Your task to perform on an android device: Go to Yahoo.com Image 0: 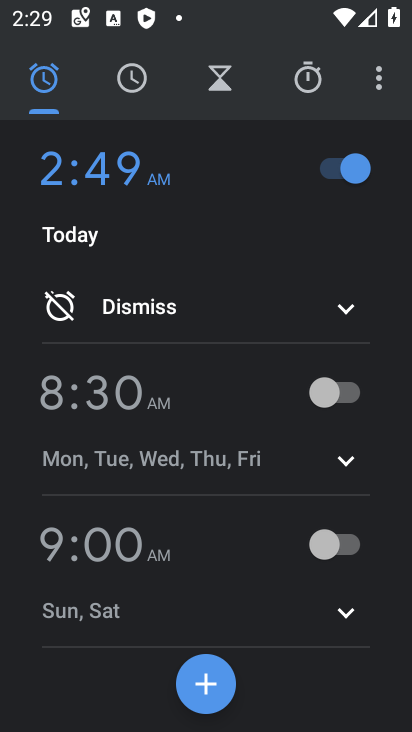
Step 0: press home button
Your task to perform on an android device: Go to Yahoo.com Image 1: 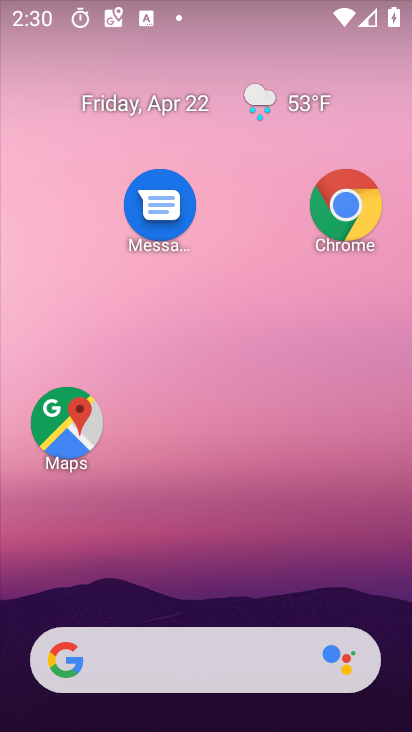
Step 1: click (353, 212)
Your task to perform on an android device: Go to Yahoo.com Image 2: 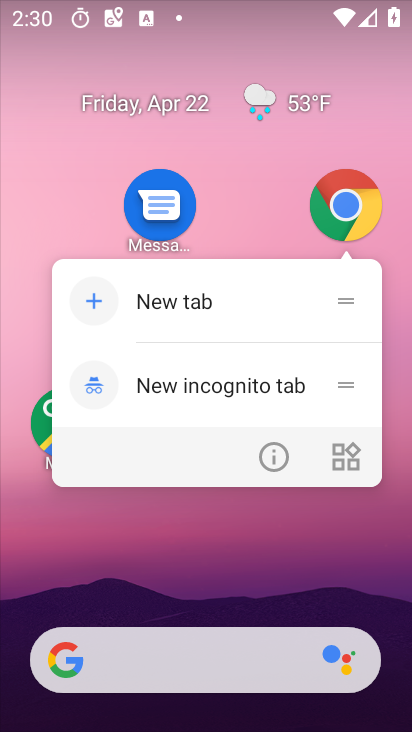
Step 2: click (353, 212)
Your task to perform on an android device: Go to Yahoo.com Image 3: 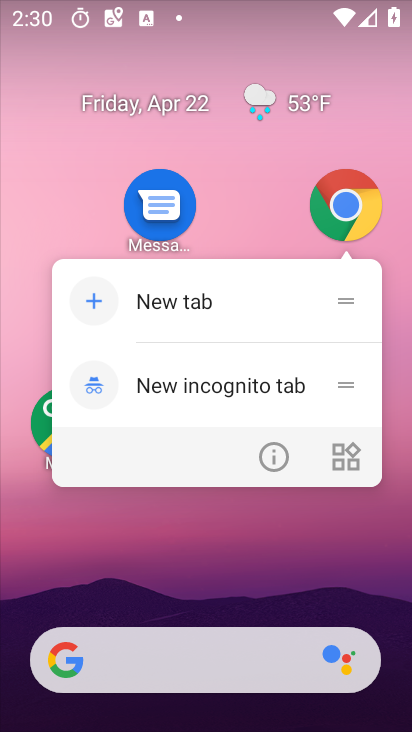
Step 3: click (353, 212)
Your task to perform on an android device: Go to Yahoo.com Image 4: 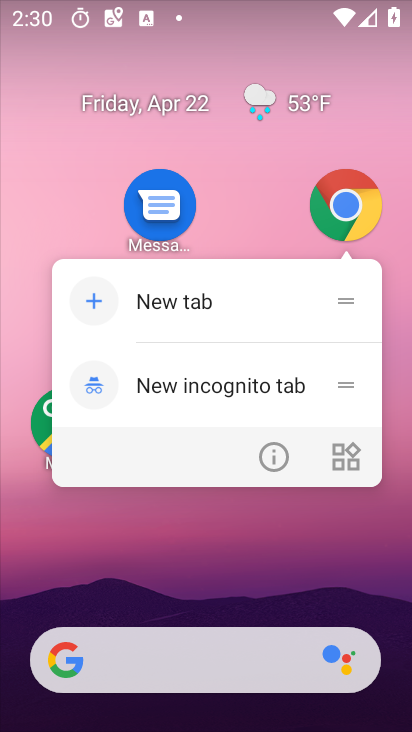
Step 4: click (347, 210)
Your task to perform on an android device: Go to Yahoo.com Image 5: 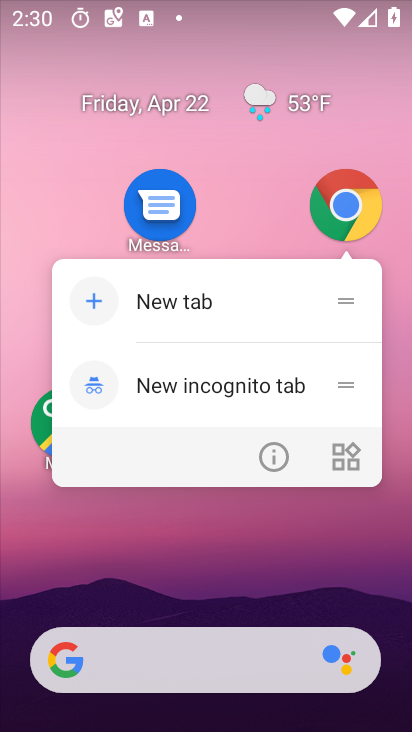
Step 5: press home button
Your task to perform on an android device: Go to Yahoo.com Image 6: 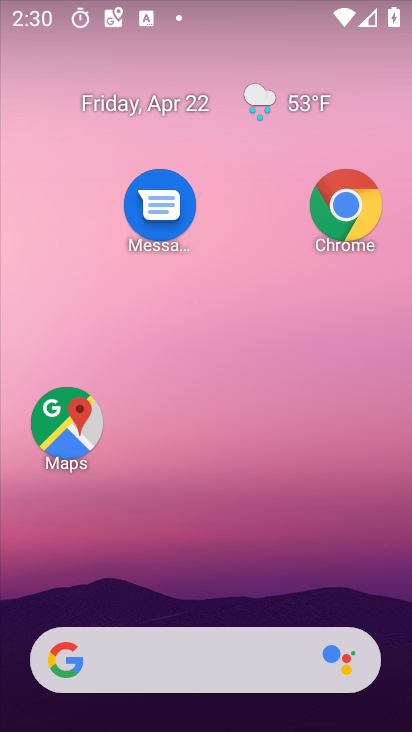
Step 6: click (345, 193)
Your task to perform on an android device: Go to Yahoo.com Image 7: 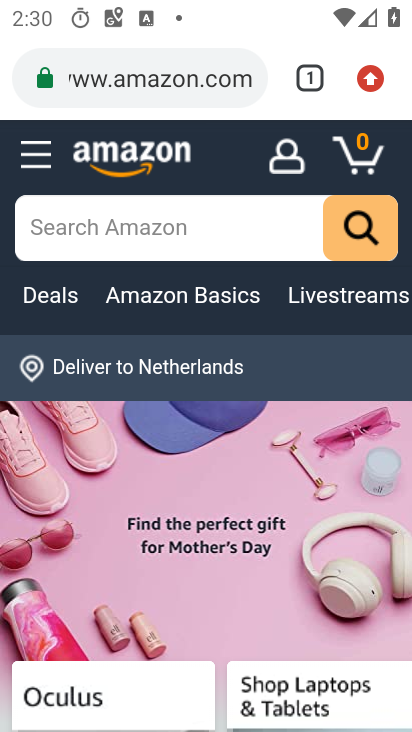
Step 7: click (313, 78)
Your task to perform on an android device: Go to Yahoo.com Image 8: 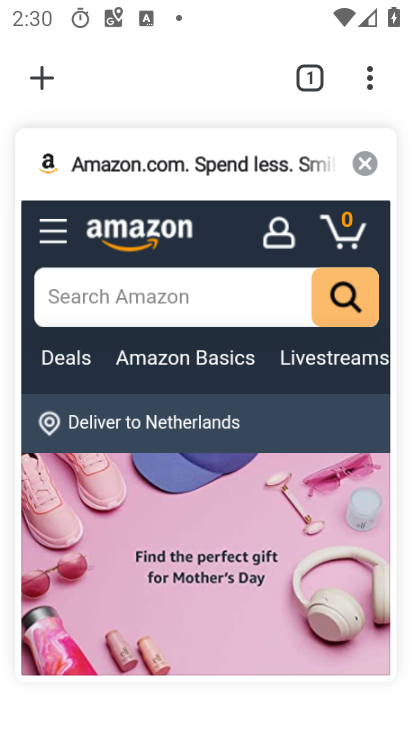
Step 8: click (364, 168)
Your task to perform on an android device: Go to Yahoo.com Image 9: 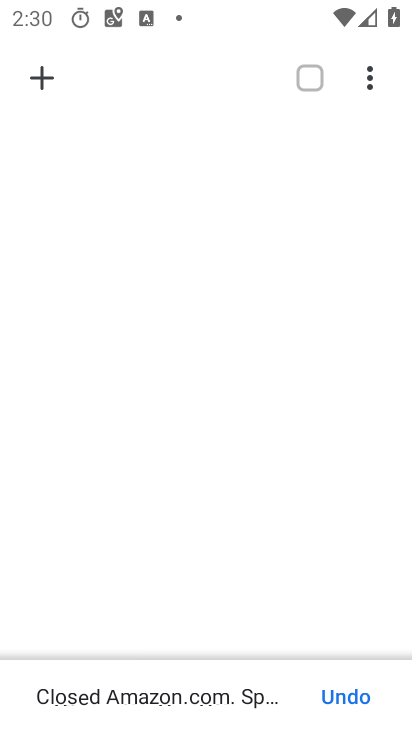
Step 9: click (39, 80)
Your task to perform on an android device: Go to Yahoo.com Image 10: 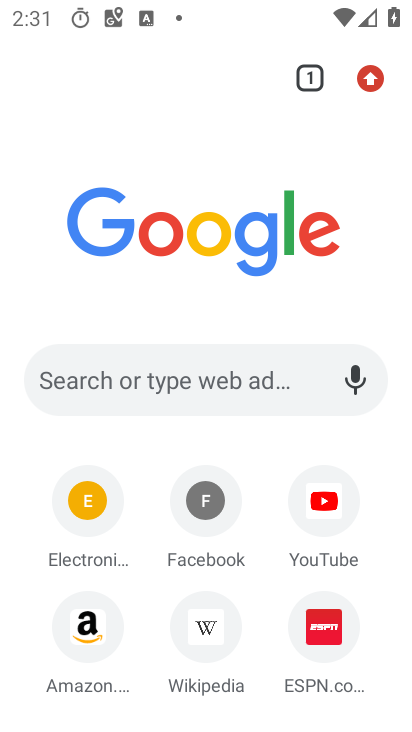
Step 10: click (91, 387)
Your task to perform on an android device: Go to Yahoo.com Image 11: 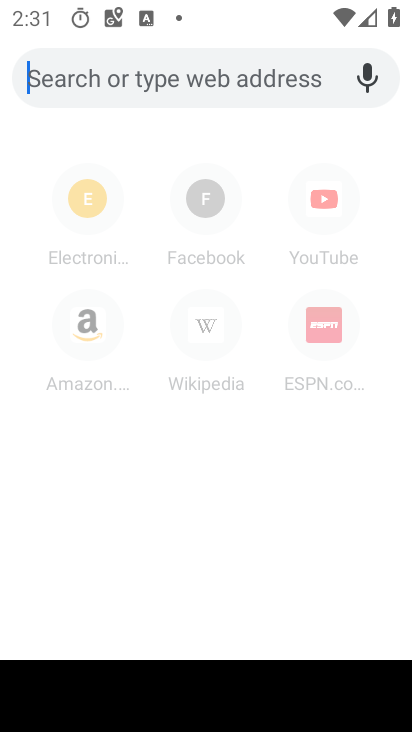
Step 11: type "yahoo.com"
Your task to perform on an android device: Go to Yahoo.com Image 12: 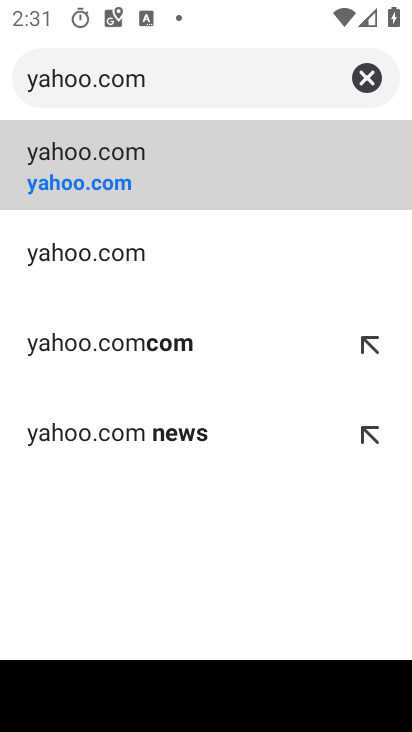
Step 12: click (121, 160)
Your task to perform on an android device: Go to Yahoo.com Image 13: 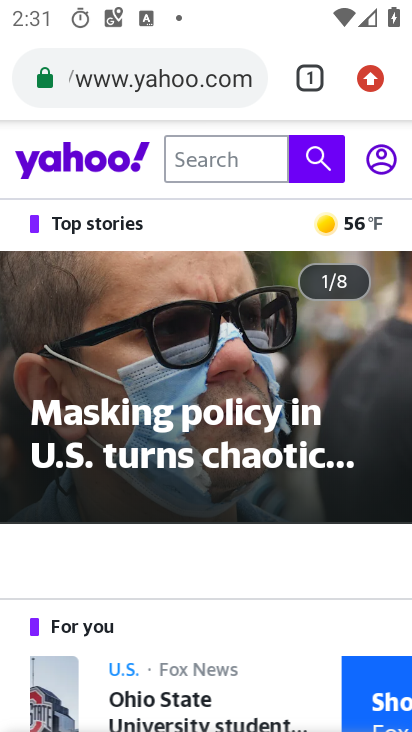
Step 13: task complete